Your task to perform on an android device: Add "razer blade" to the cart on costco Image 0: 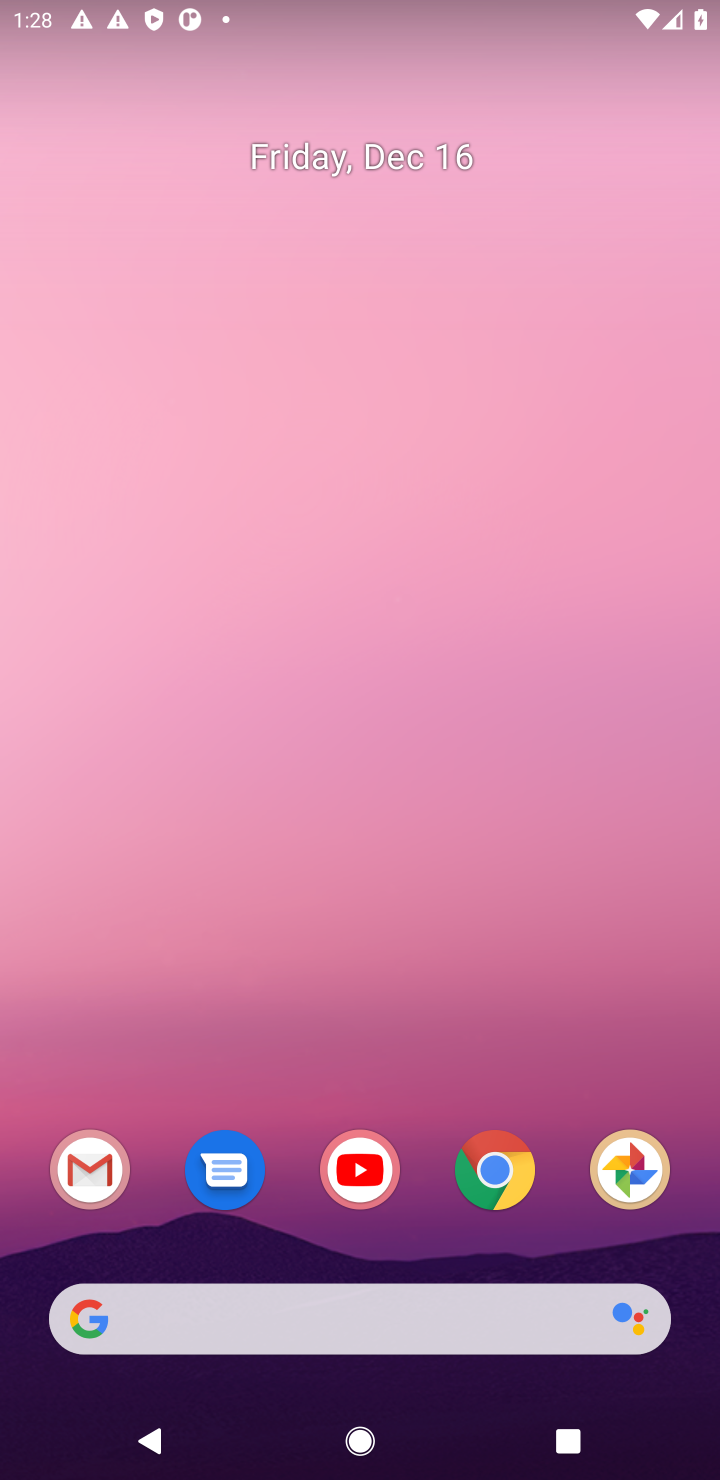
Step 0: click (491, 1167)
Your task to perform on an android device: Add "razer blade" to the cart on costco Image 1: 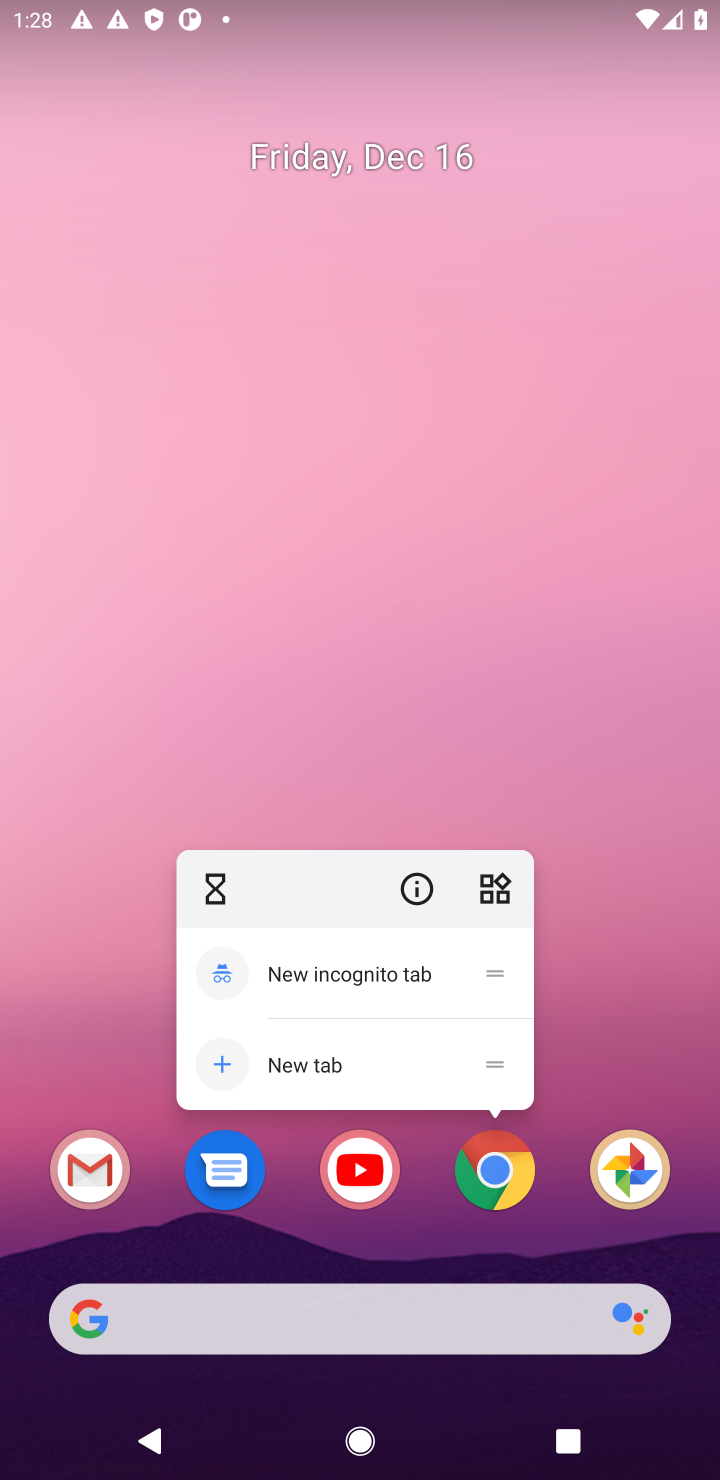
Step 1: click (496, 1174)
Your task to perform on an android device: Add "razer blade" to the cart on costco Image 2: 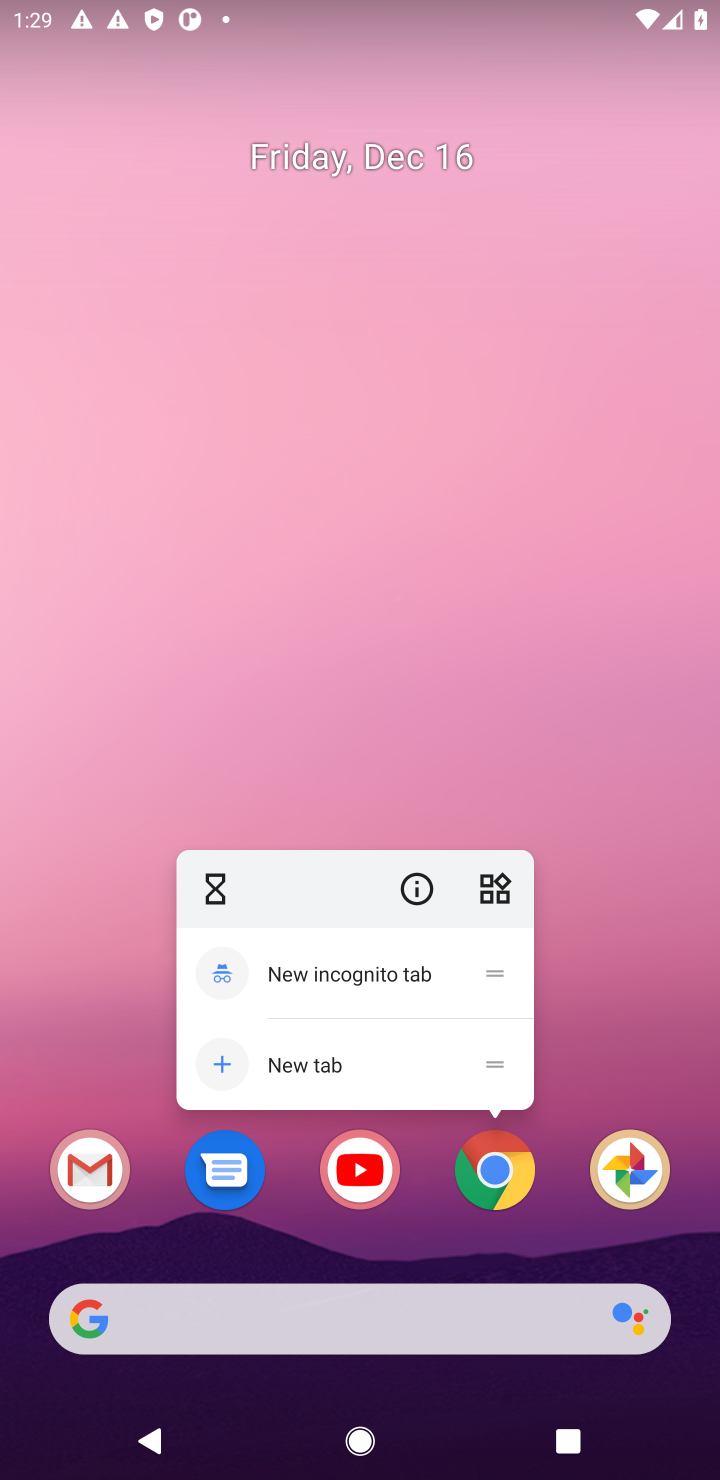
Step 2: click (494, 1183)
Your task to perform on an android device: Add "razer blade" to the cart on costco Image 3: 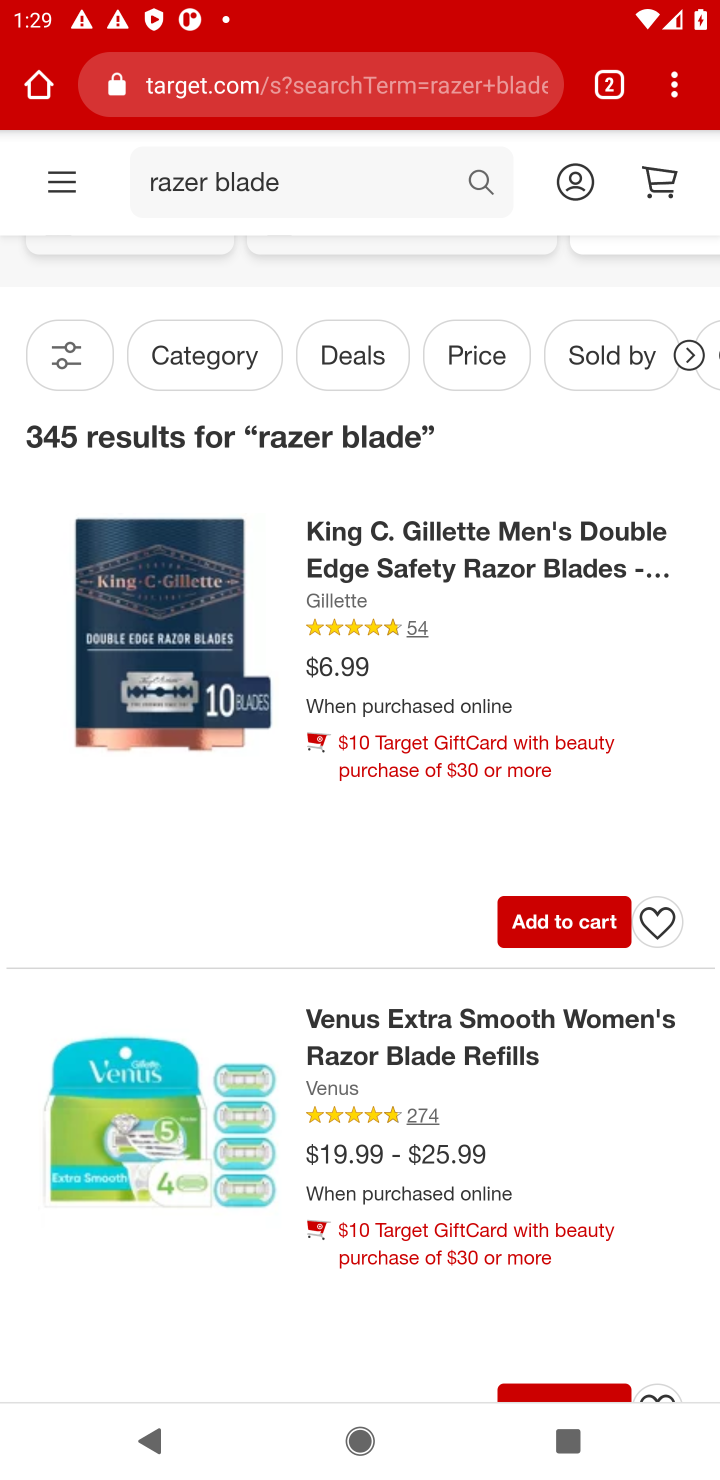
Step 3: click (249, 79)
Your task to perform on an android device: Add "razer blade" to the cart on costco Image 4: 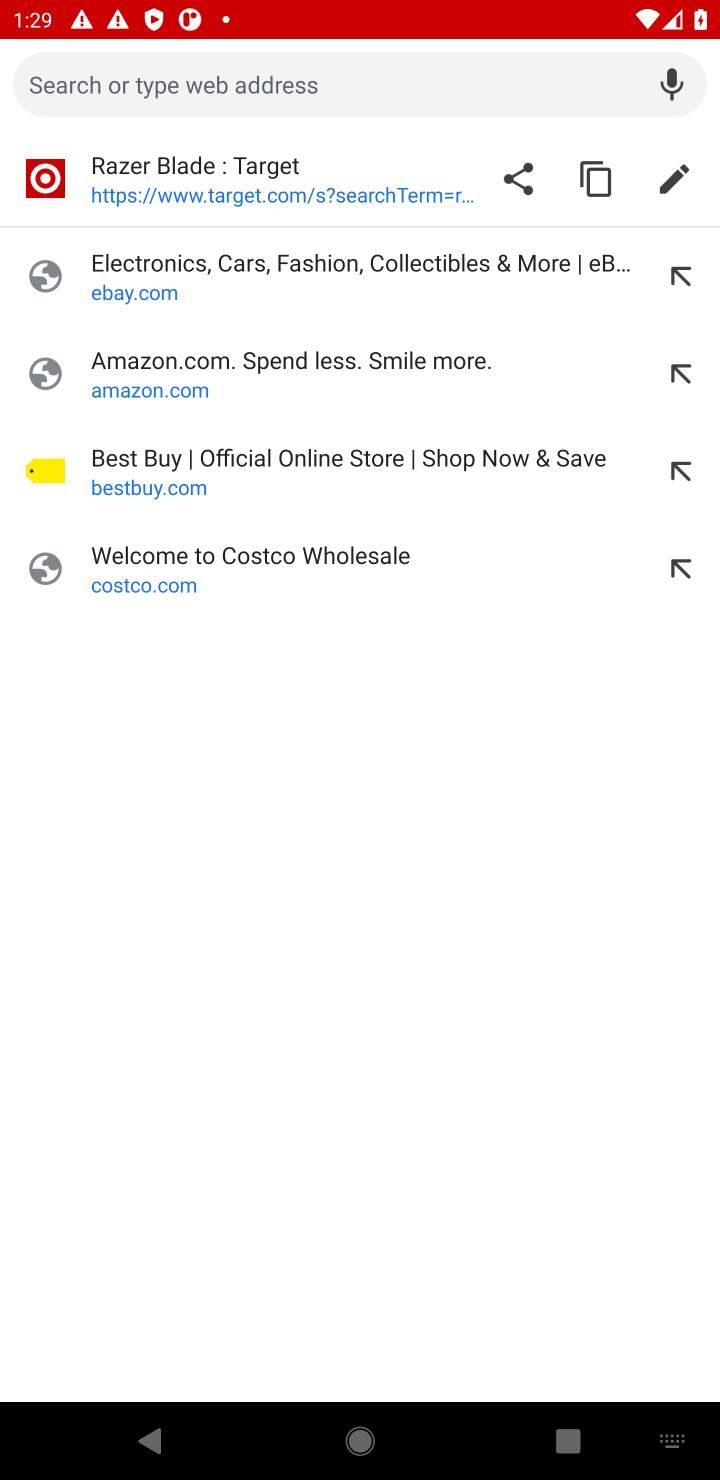
Step 4: click (129, 577)
Your task to perform on an android device: Add "razer blade" to the cart on costco Image 5: 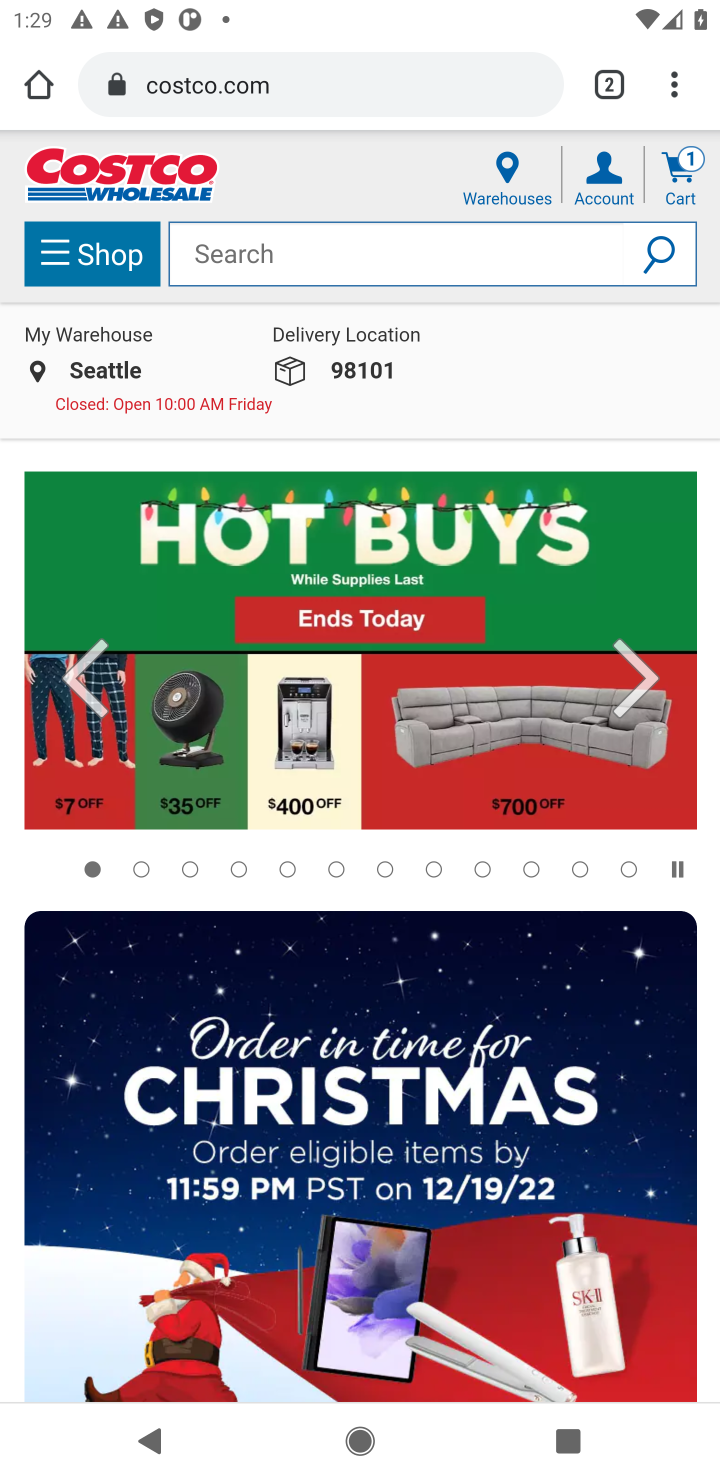
Step 5: click (278, 272)
Your task to perform on an android device: Add "razer blade" to the cart on costco Image 6: 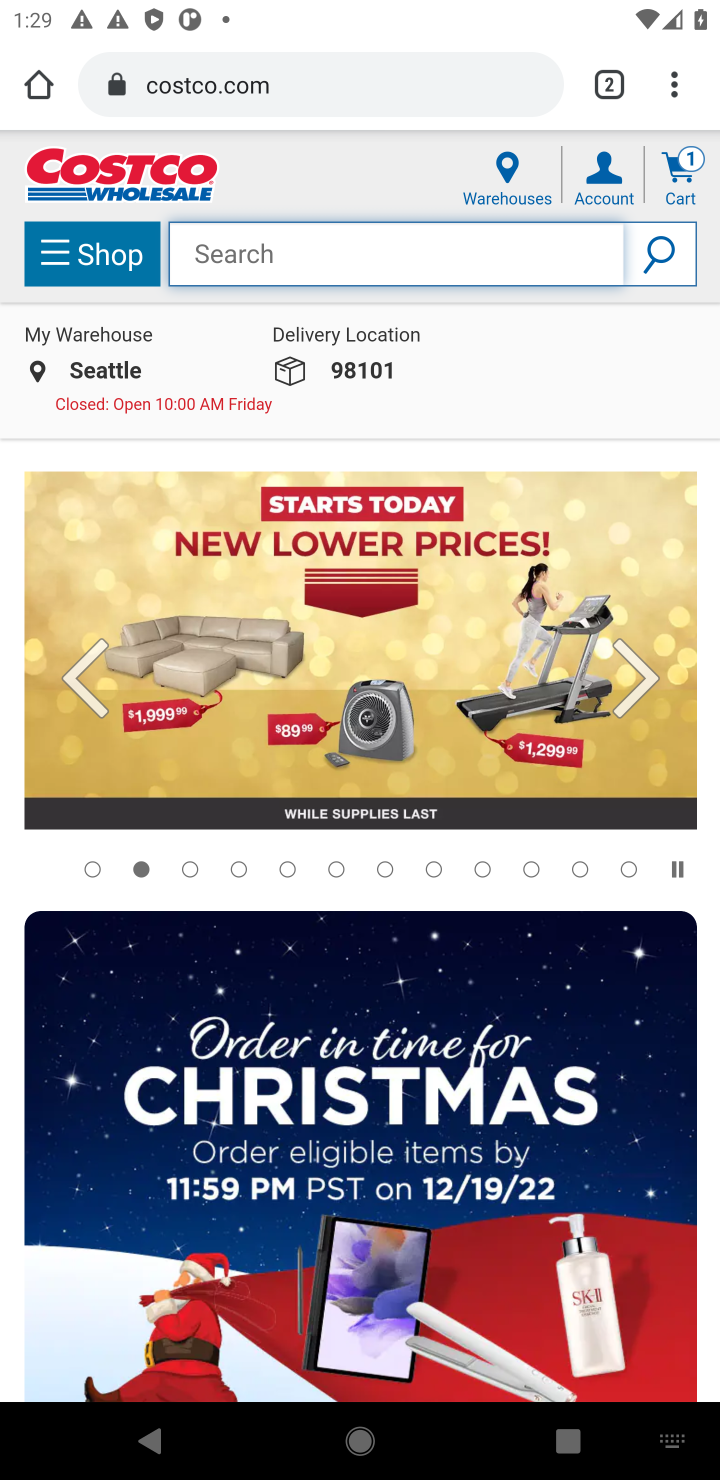
Step 6: type "razer blade"
Your task to perform on an android device: Add "razer blade" to the cart on costco Image 7: 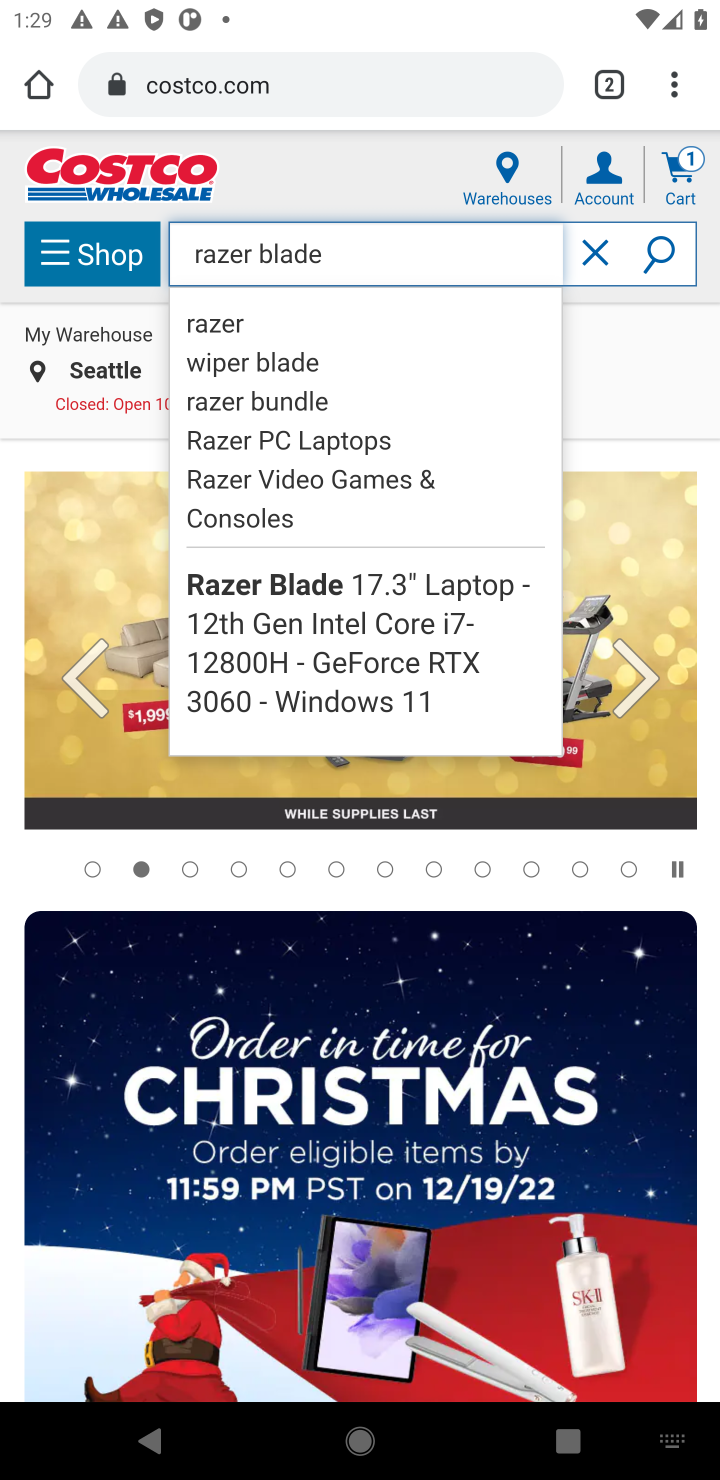
Step 7: click (666, 264)
Your task to perform on an android device: Add "razer blade" to the cart on costco Image 8: 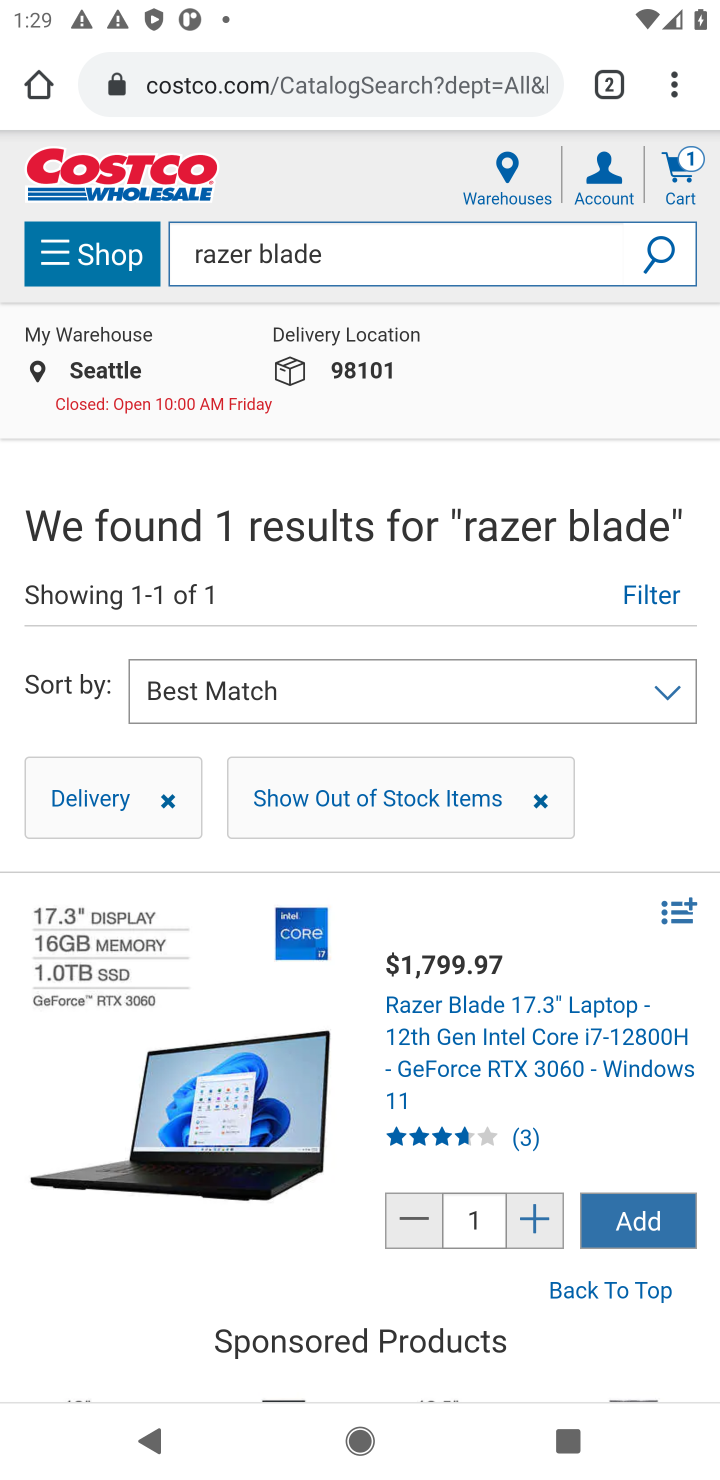
Step 8: click (626, 1230)
Your task to perform on an android device: Add "razer blade" to the cart on costco Image 9: 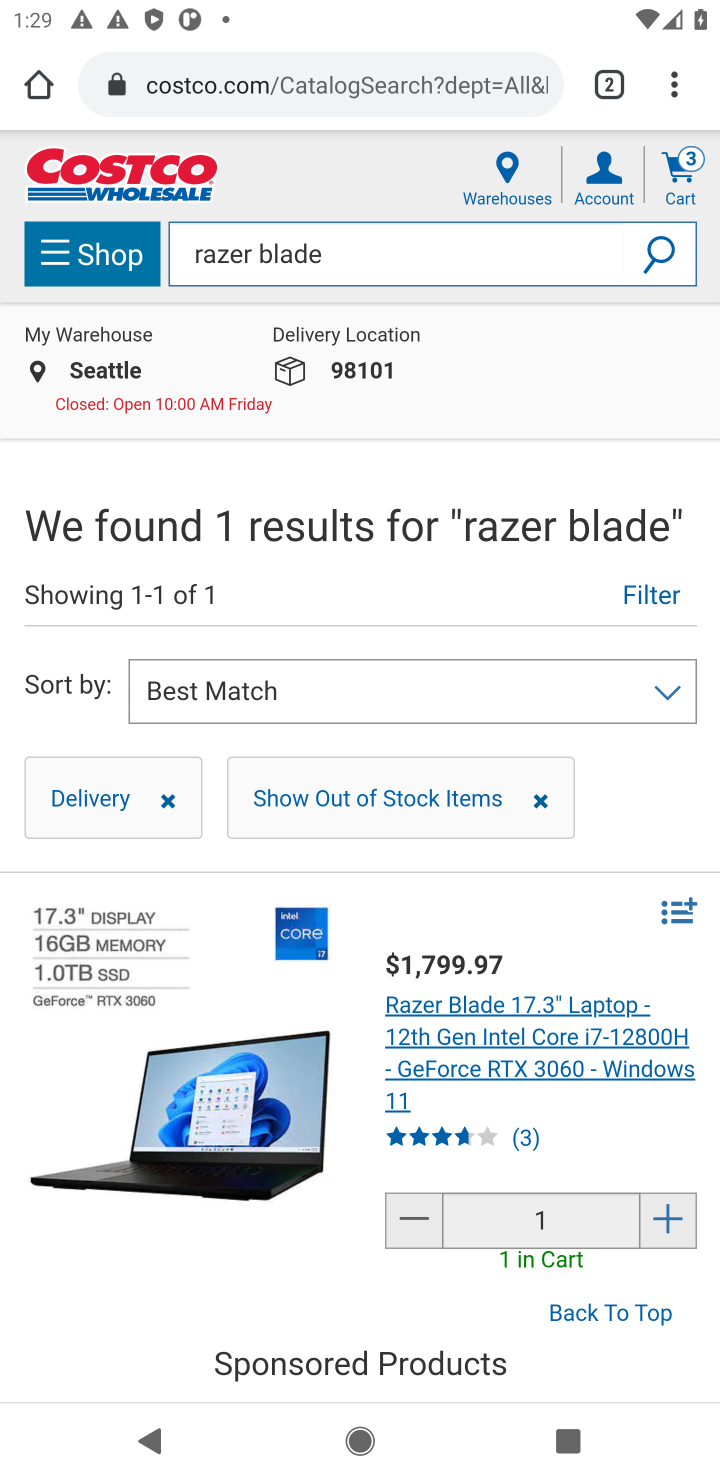
Step 9: task complete